Your task to perform on an android device: make emails show in primary in the gmail app Image 0: 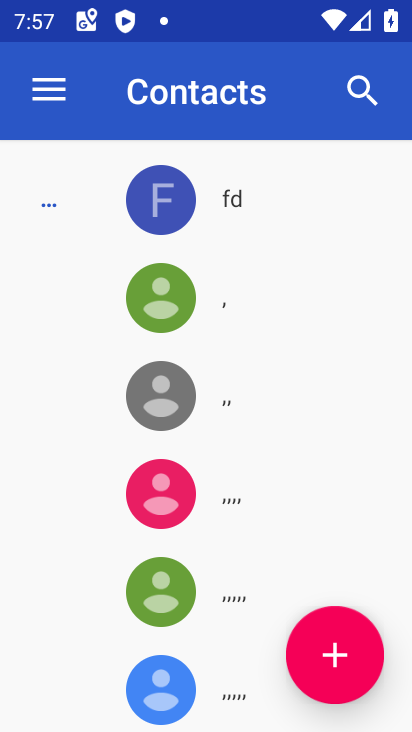
Step 0: press home button
Your task to perform on an android device: make emails show in primary in the gmail app Image 1: 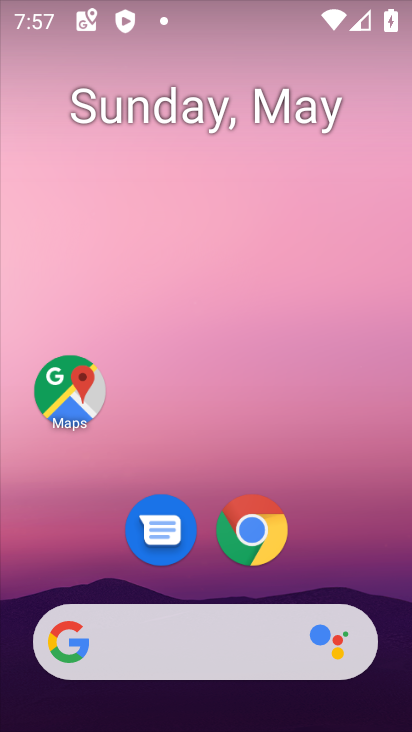
Step 1: drag from (363, 595) to (385, 27)
Your task to perform on an android device: make emails show in primary in the gmail app Image 2: 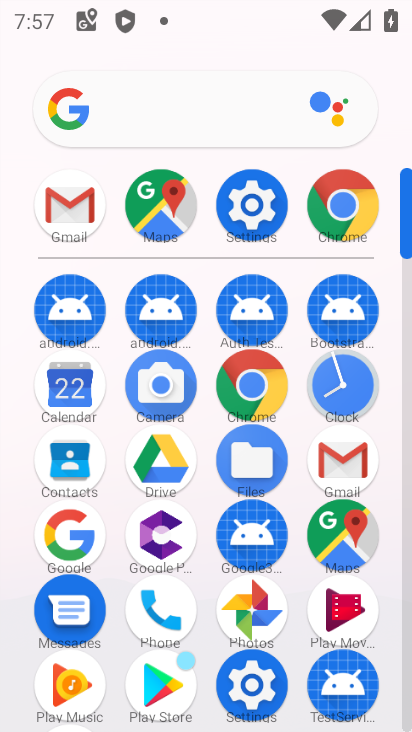
Step 2: click (71, 216)
Your task to perform on an android device: make emails show in primary in the gmail app Image 3: 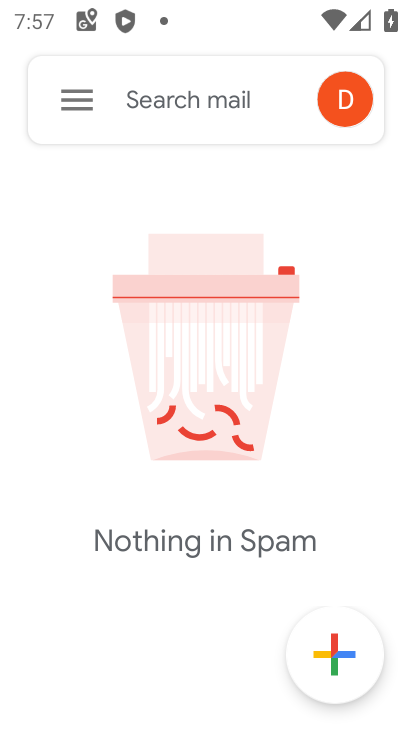
Step 3: click (80, 98)
Your task to perform on an android device: make emails show in primary in the gmail app Image 4: 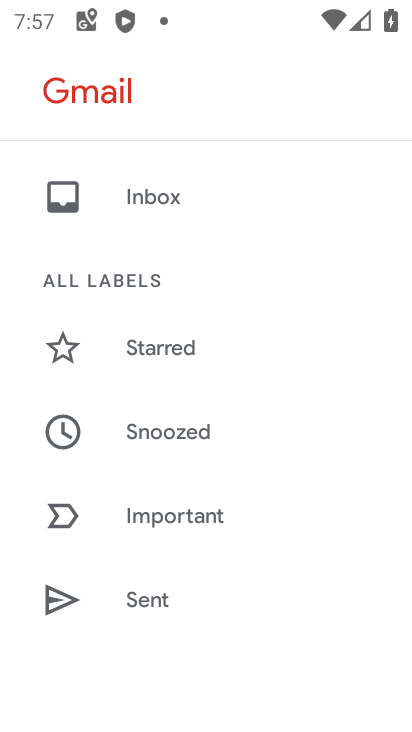
Step 4: drag from (277, 574) to (231, 109)
Your task to perform on an android device: make emails show in primary in the gmail app Image 5: 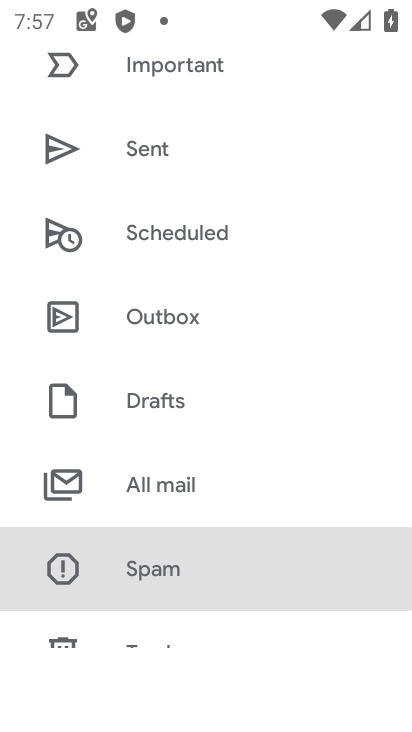
Step 5: drag from (286, 622) to (256, 152)
Your task to perform on an android device: make emails show in primary in the gmail app Image 6: 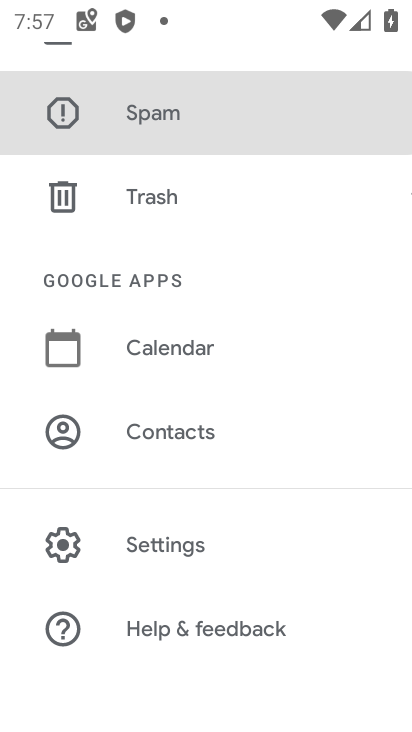
Step 6: drag from (264, 618) to (246, 244)
Your task to perform on an android device: make emails show in primary in the gmail app Image 7: 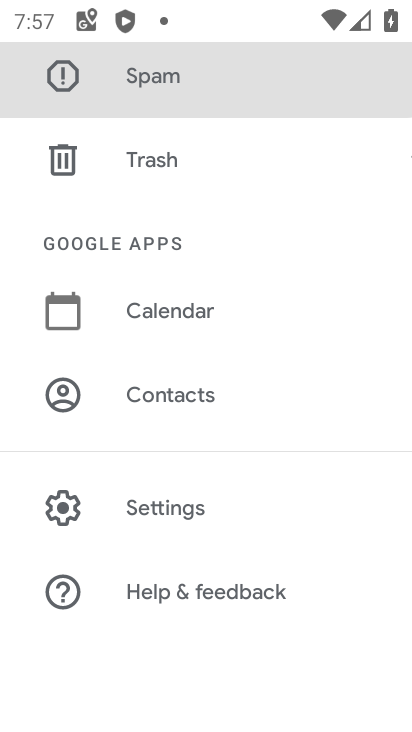
Step 7: click (162, 509)
Your task to perform on an android device: make emails show in primary in the gmail app Image 8: 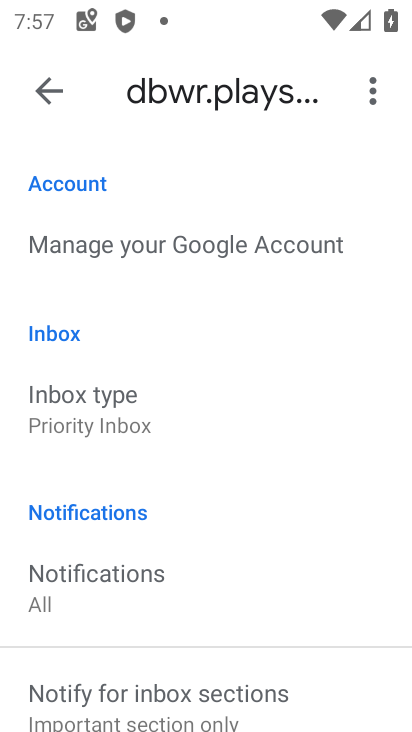
Step 8: task complete